Your task to perform on an android device: Open display settings Image 0: 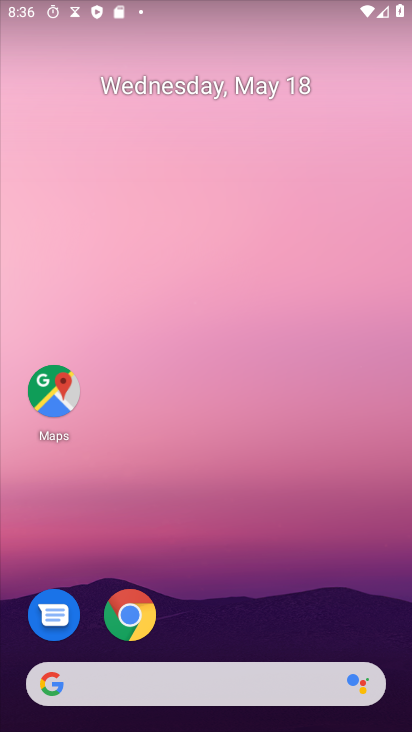
Step 0: drag from (278, 599) to (308, 166)
Your task to perform on an android device: Open display settings Image 1: 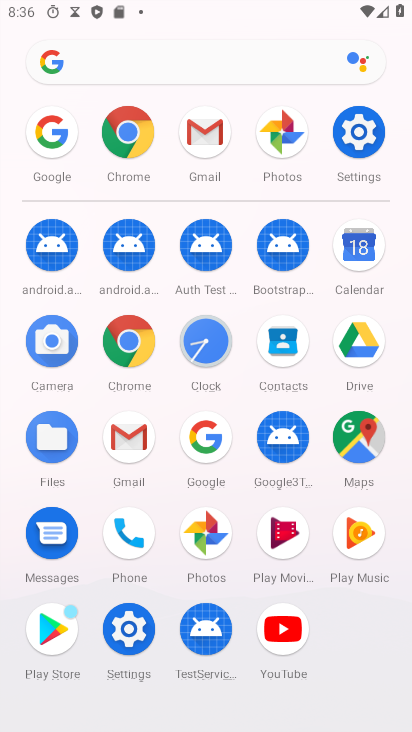
Step 1: click (360, 132)
Your task to perform on an android device: Open display settings Image 2: 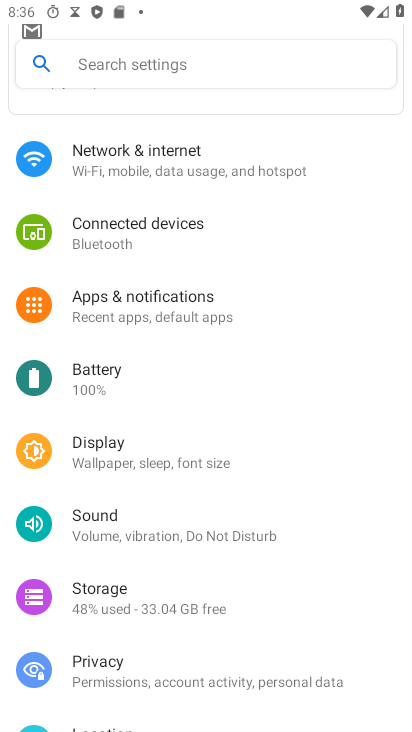
Step 2: click (138, 453)
Your task to perform on an android device: Open display settings Image 3: 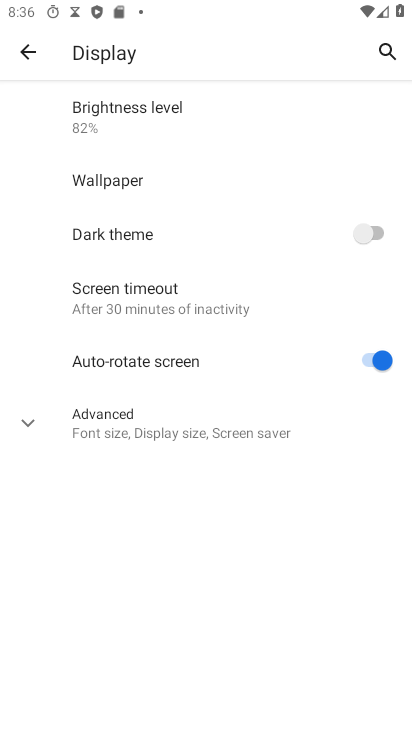
Step 3: task complete